Your task to perform on an android device: turn on location history Image 0: 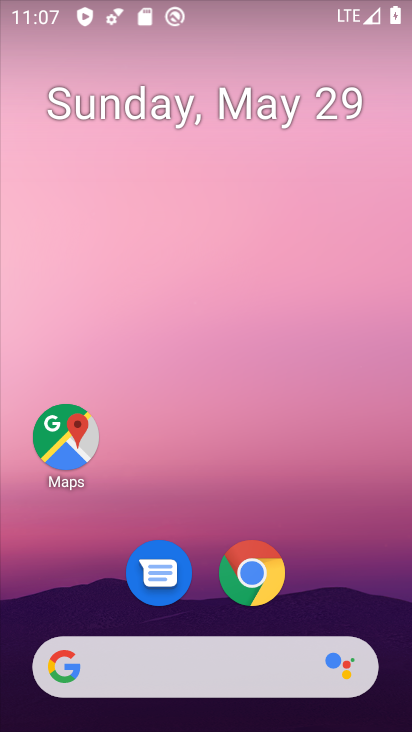
Step 0: drag from (345, 548) to (243, 65)
Your task to perform on an android device: turn on location history Image 1: 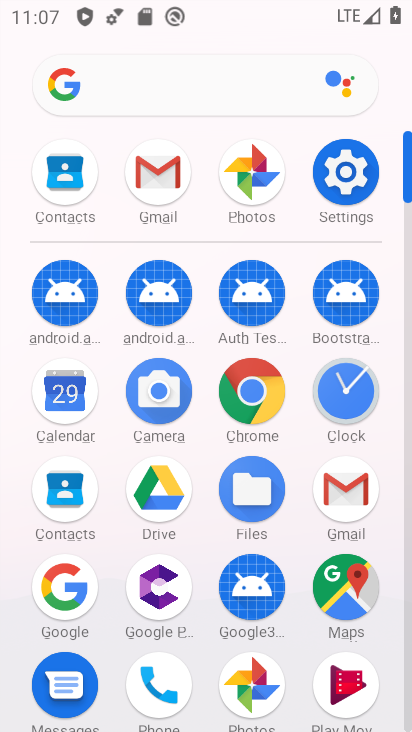
Step 1: click (358, 170)
Your task to perform on an android device: turn on location history Image 2: 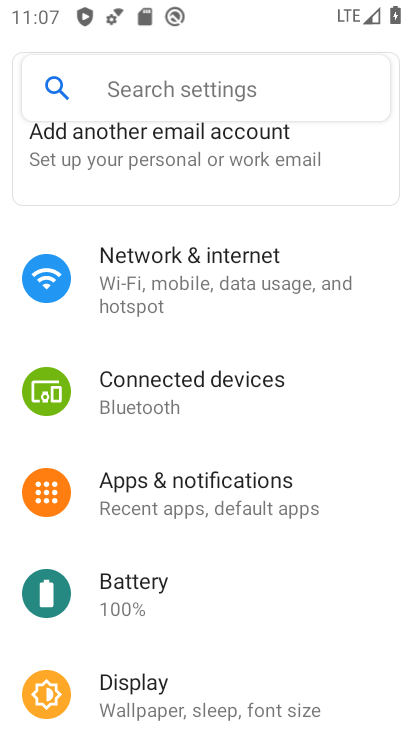
Step 2: drag from (326, 601) to (282, 76)
Your task to perform on an android device: turn on location history Image 3: 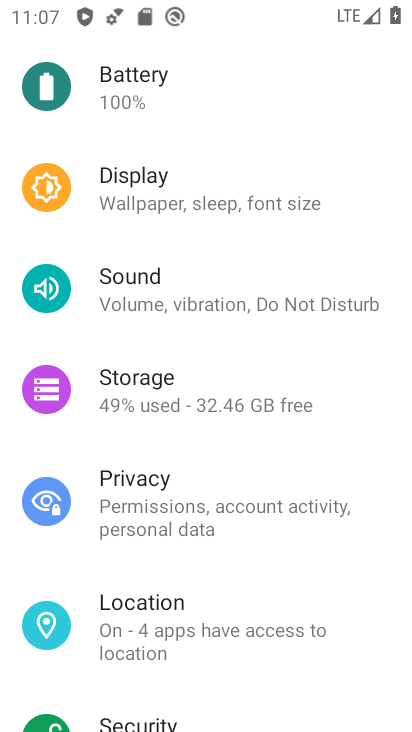
Step 3: click (227, 621)
Your task to perform on an android device: turn on location history Image 4: 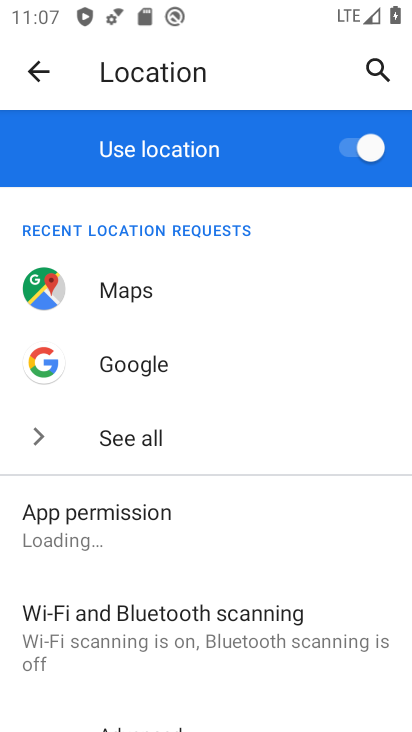
Step 4: drag from (300, 563) to (274, 157)
Your task to perform on an android device: turn on location history Image 5: 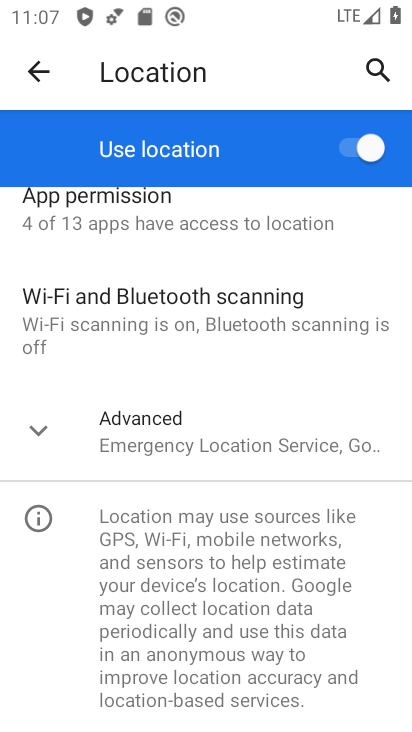
Step 5: click (53, 426)
Your task to perform on an android device: turn on location history Image 6: 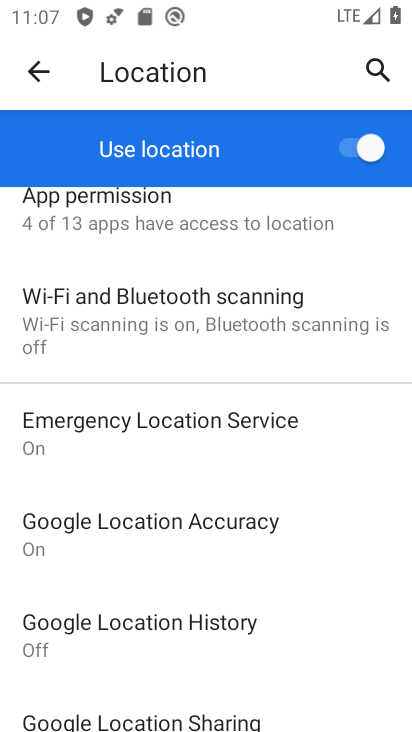
Step 6: click (109, 627)
Your task to perform on an android device: turn on location history Image 7: 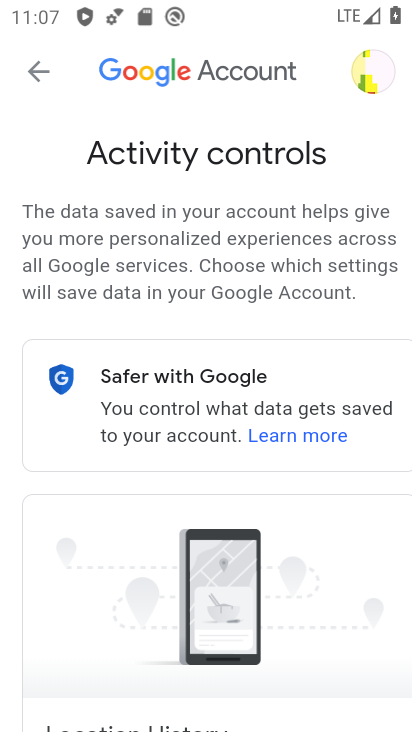
Step 7: drag from (325, 633) to (255, 154)
Your task to perform on an android device: turn on location history Image 8: 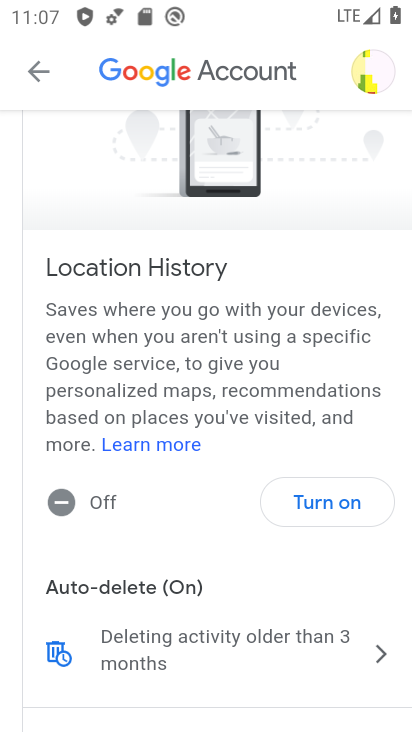
Step 8: click (343, 485)
Your task to perform on an android device: turn on location history Image 9: 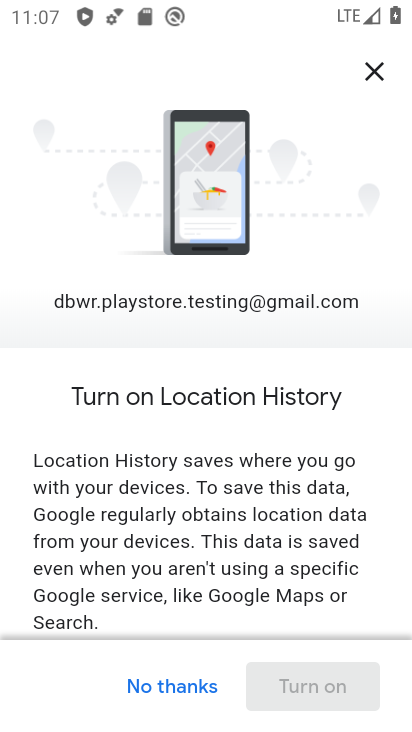
Step 9: click (203, 686)
Your task to perform on an android device: turn on location history Image 10: 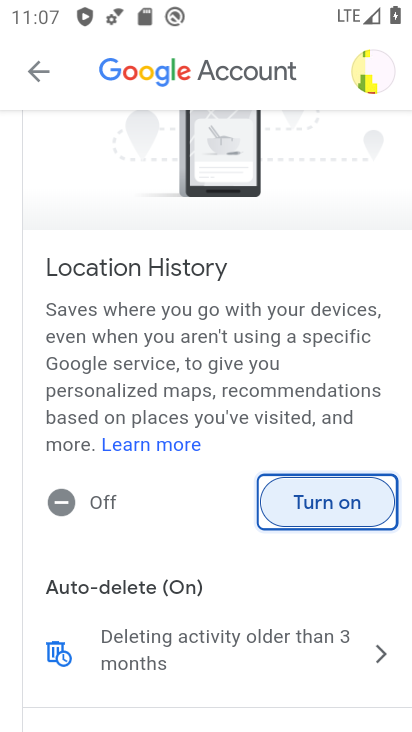
Step 10: task complete